Your task to perform on an android device: toggle location history Image 0: 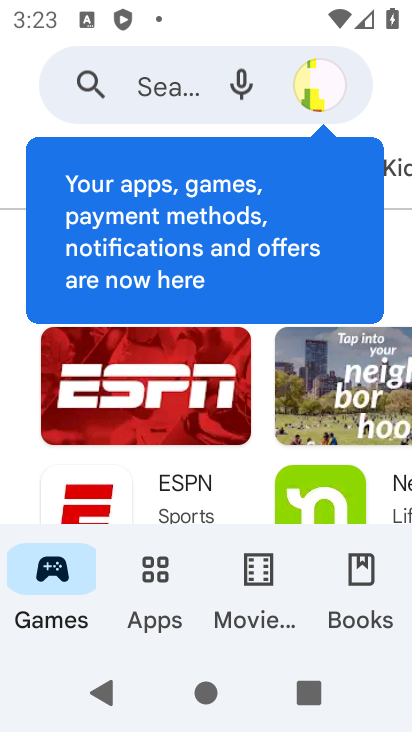
Step 0: task complete